Your task to perform on an android device: Show me the alarms in the clock app Image 0: 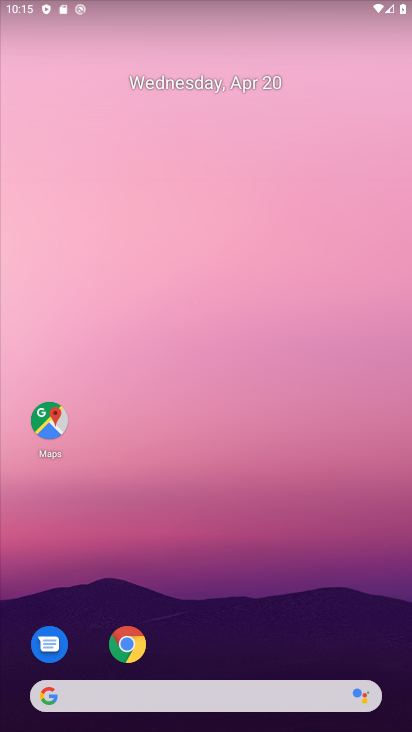
Step 0: drag from (251, 231) to (263, 0)
Your task to perform on an android device: Show me the alarms in the clock app Image 1: 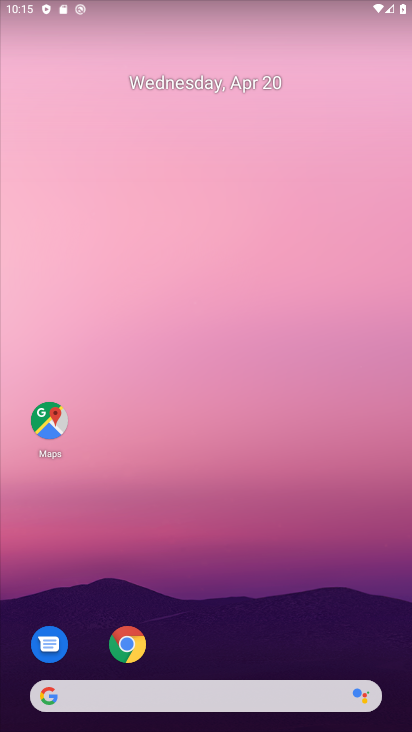
Step 1: drag from (205, 542) to (236, 192)
Your task to perform on an android device: Show me the alarms in the clock app Image 2: 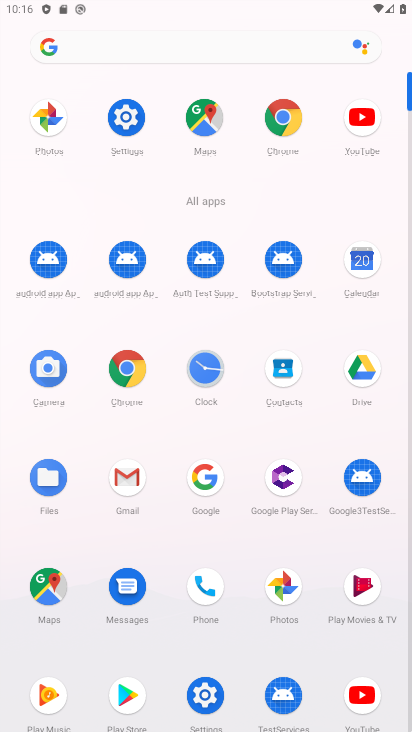
Step 2: click (205, 378)
Your task to perform on an android device: Show me the alarms in the clock app Image 3: 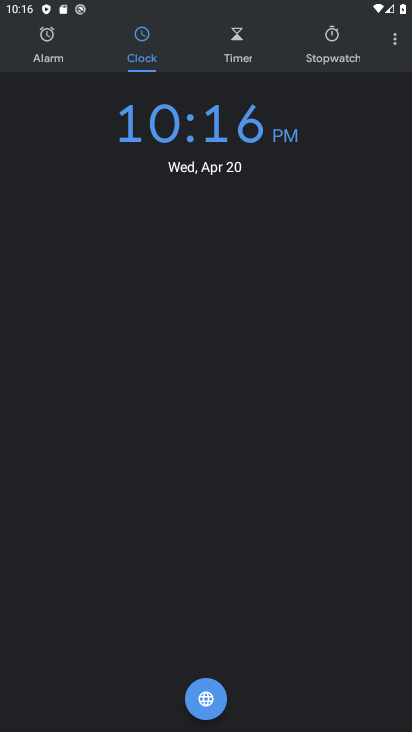
Step 3: click (43, 42)
Your task to perform on an android device: Show me the alarms in the clock app Image 4: 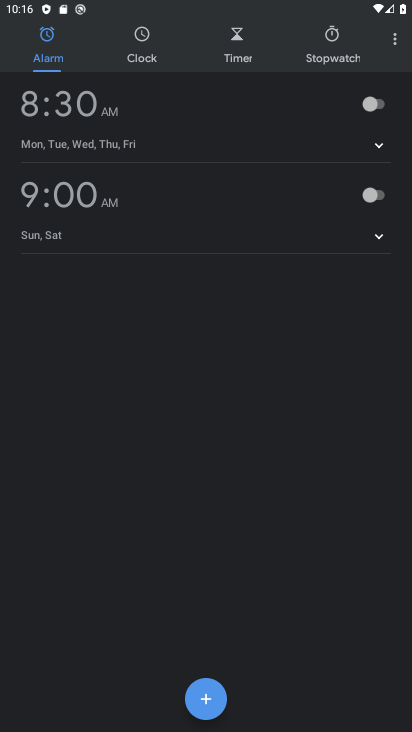
Step 4: task complete